Your task to perform on an android device: Install the Weather app Image 0: 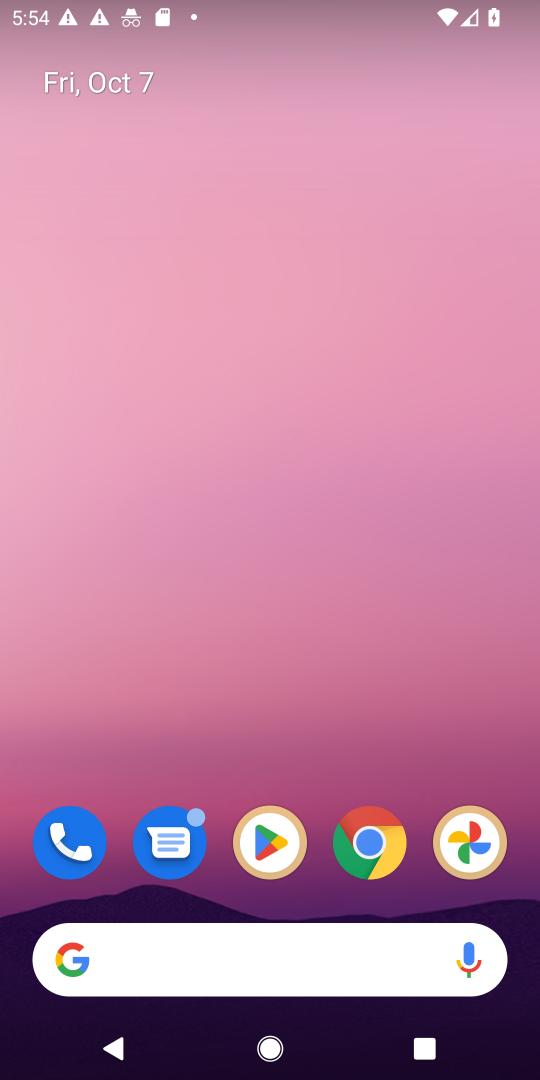
Step 0: click (275, 838)
Your task to perform on an android device: Install the Weather app Image 1: 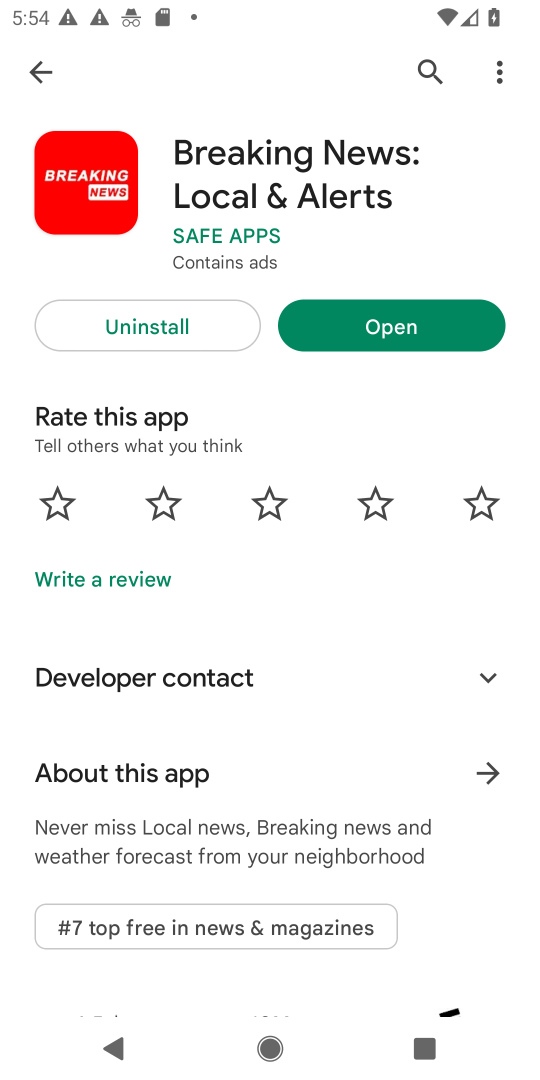
Step 1: click (423, 78)
Your task to perform on an android device: Install the Weather app Image 2: 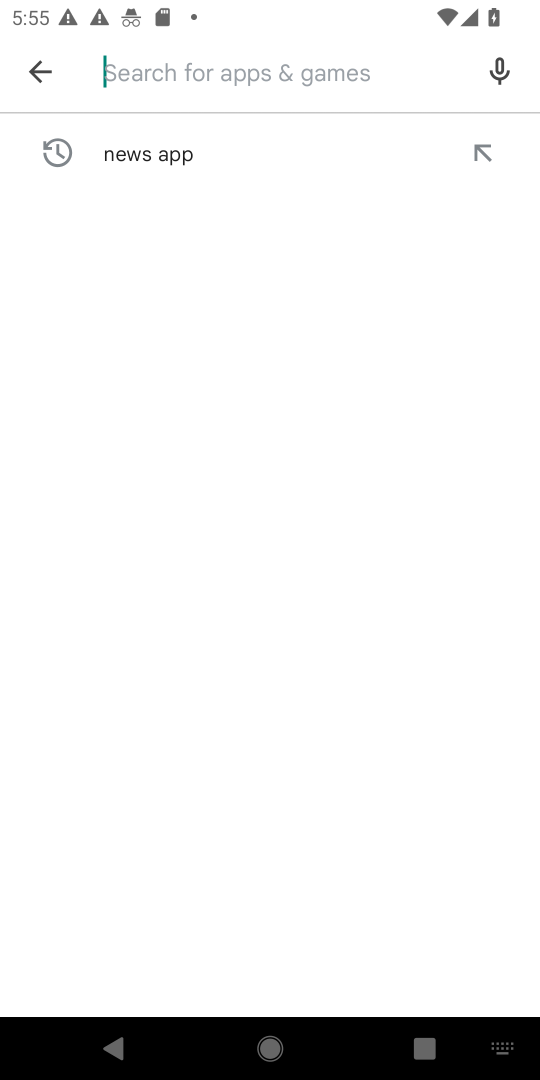
Step 2: click (225, 87)
Your task to perform on an android device: Install the Weather app Image 3: 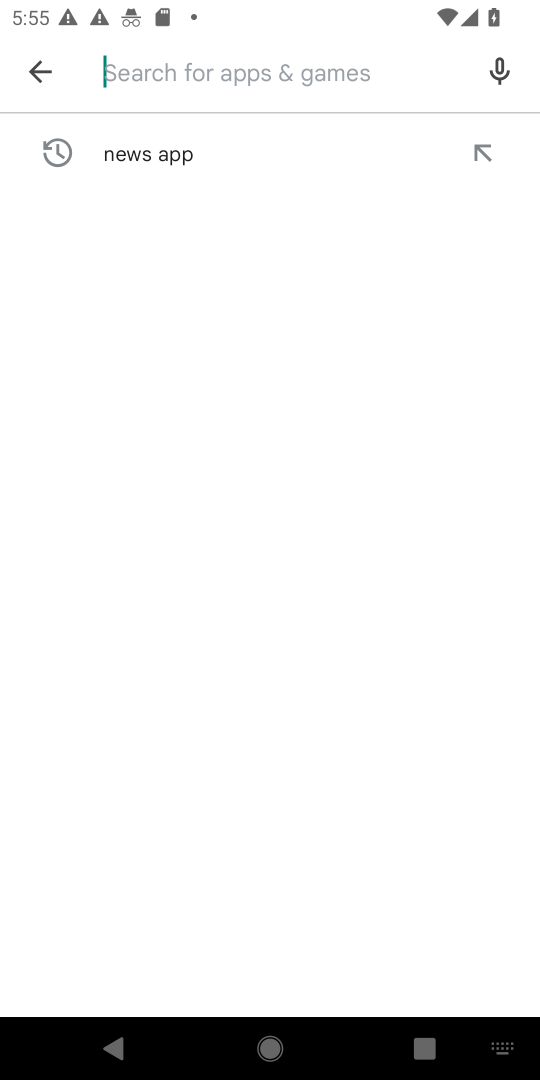
Step 3: type "Weather app"
Your task to perform on an android device: Install the Weather app Image 4: 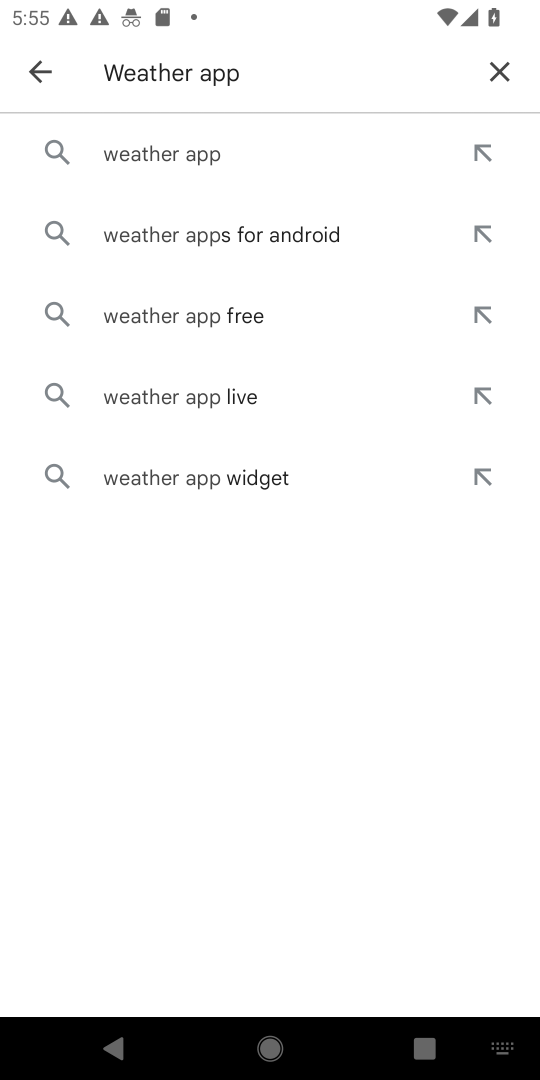
Step 4: click (138, 156)
Your task to perform on an android device: Install the Weather app Image 5: 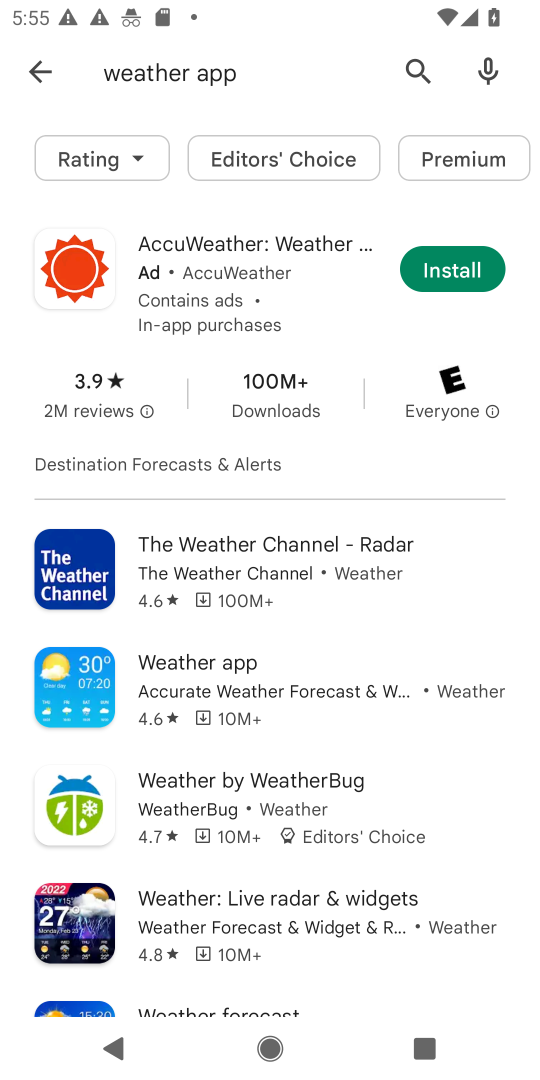
Step 5: click (439, 270)
Your task to perform on an android device: Install the Weather app Image 6: 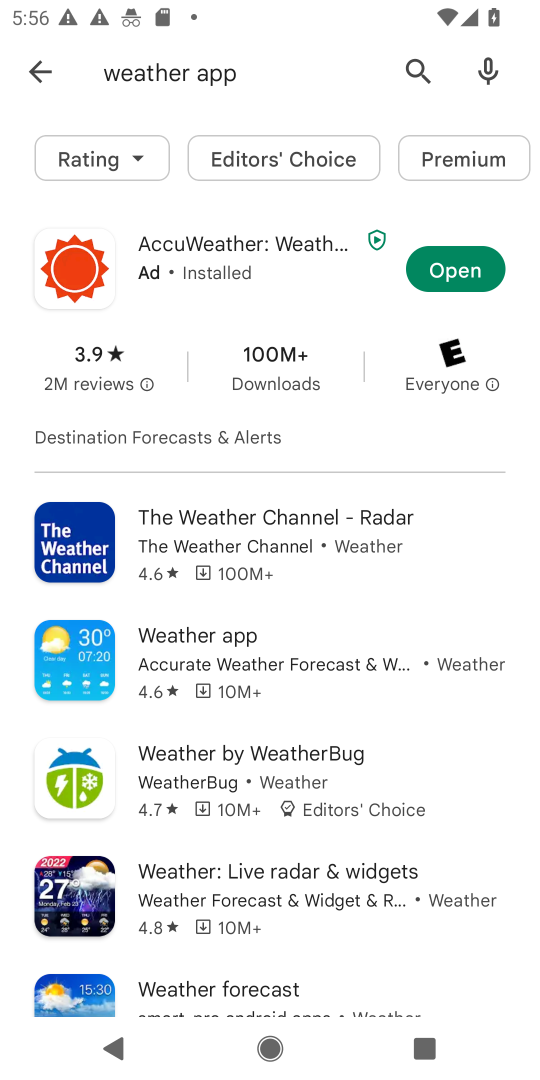
Step 6: click (465, 264)
Your task to perform on an android device: Install the Weather app Image 7: 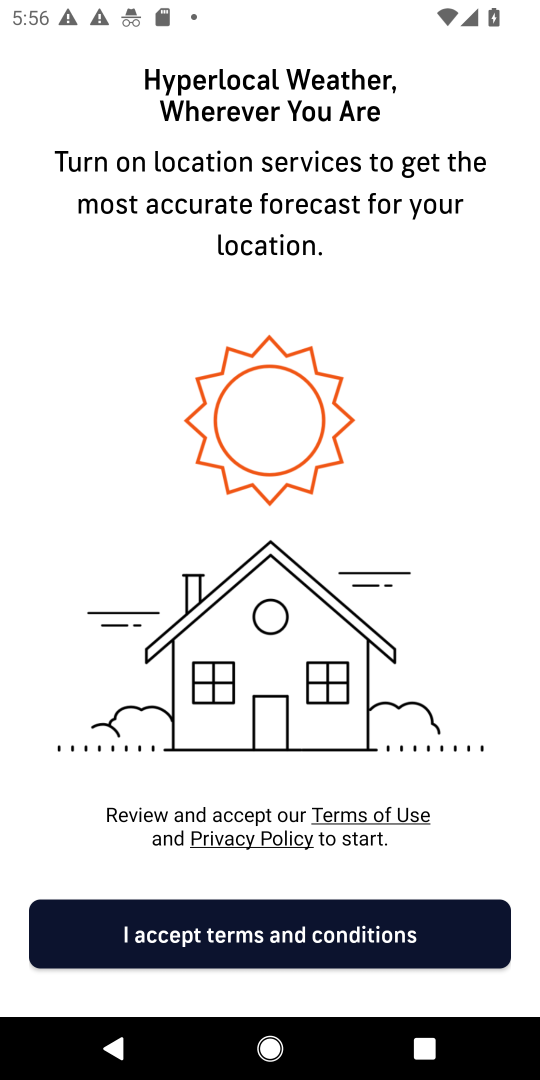
Step 7: task complete